Your task to perform on an android device: see sites visited before in the chrome app Image 0: 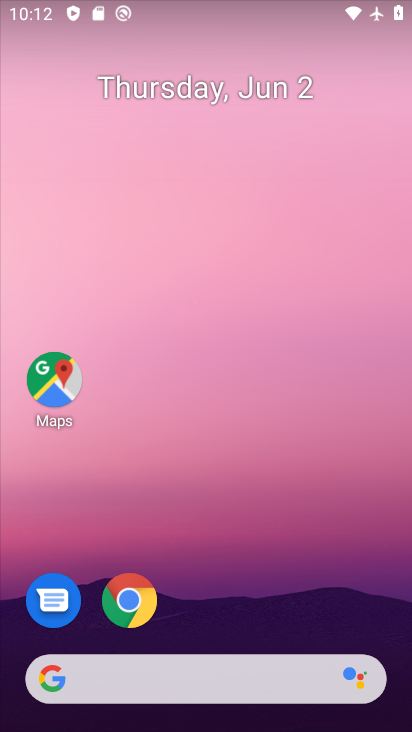
Step 0: press home button
Your task to perform on an android device: see sites visited before in the chrome app Image 1: 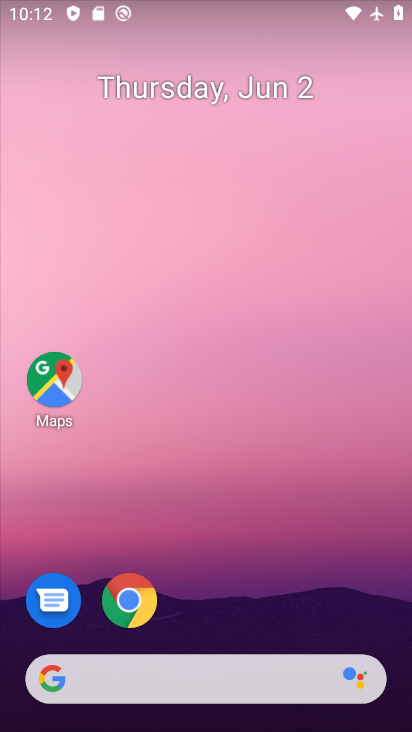
Step 1: click (128, 607)
Your task to perform on an android device: see sites visited before in the chrome app Image 2: 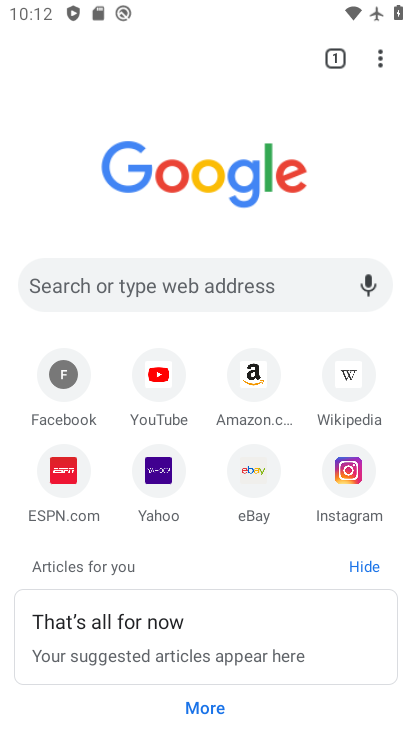
Step 2: task complete